Your task to perform on an android device: find snoozed emails in the gmail app Image 0: 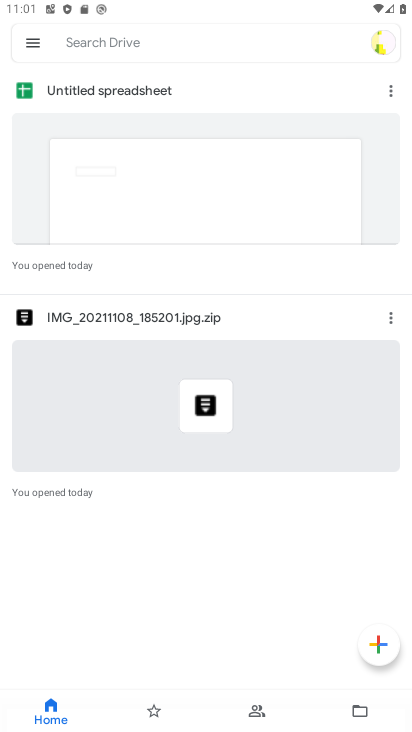
Step 0: press home button
Your task to perform on an android device: find snoozed emails in the gmail app Image 1: 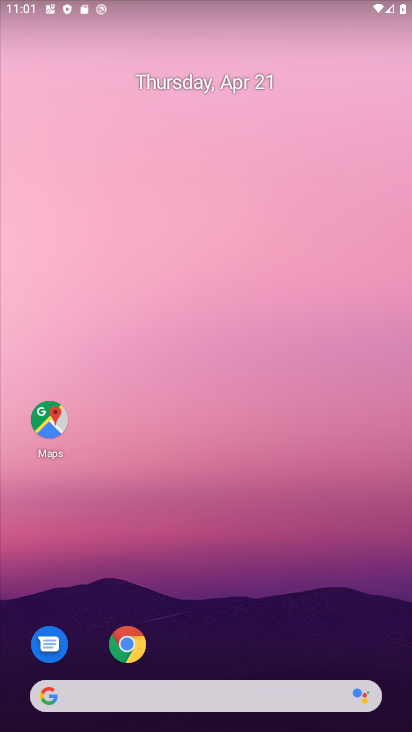
Step 1: drag from (284, 439) to (268, 334)
Your task to perform on an android device: find snoozed emails in the gmail app Image 2: 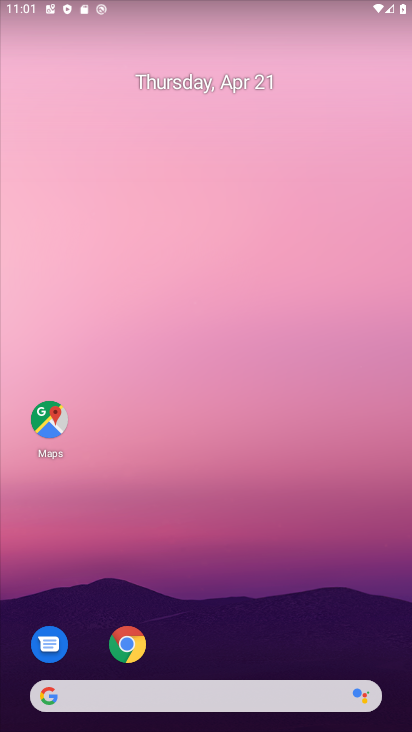
Step 2: drag from (221, 640) to (245, 141)
Your task to perform on an android device: find snoozed emails in the gmail app Image 3: 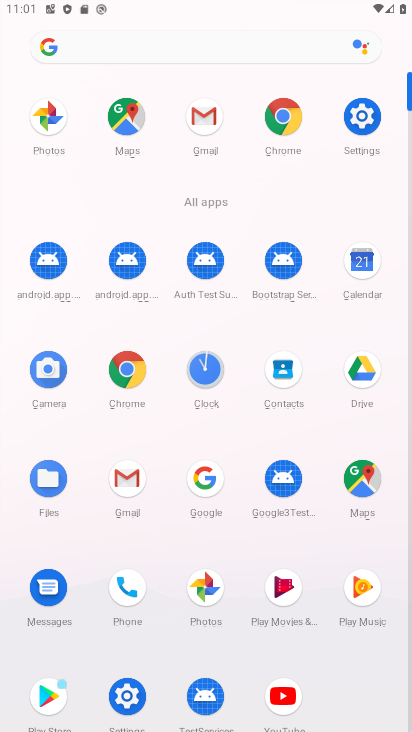
Step 3: click (200, 122)
Your task to perform on an android device: find snoozed emails in the gmail app Image 4: 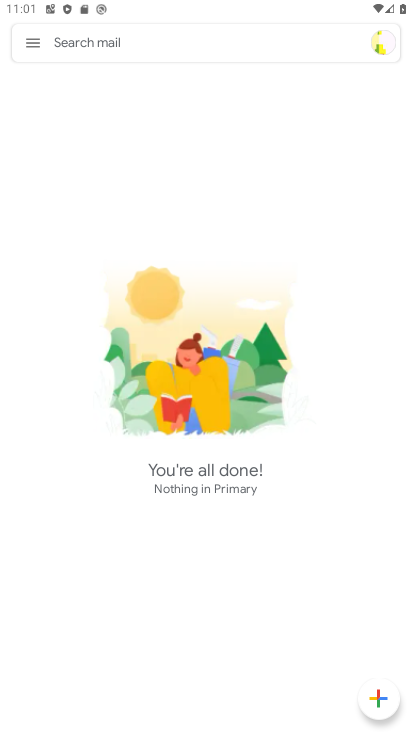
Step 4: click (34, 49)
Your task to perform on an android device: find snoozed emails in the gmail app Image 5: 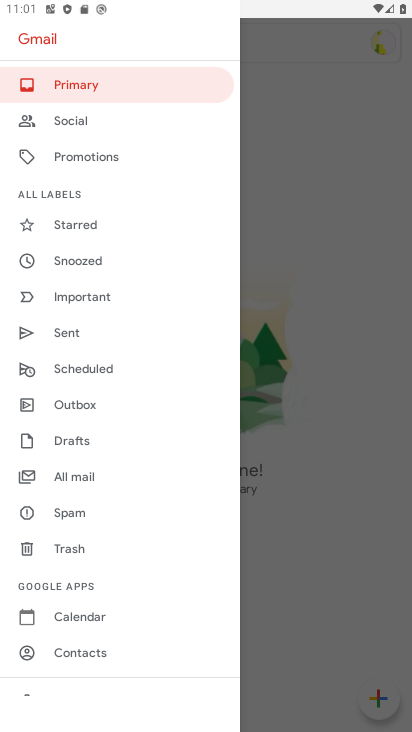
Step 5: click (126, 264)
Your task to perform on an android device: find snoozed emails in the gmail app Image 6: 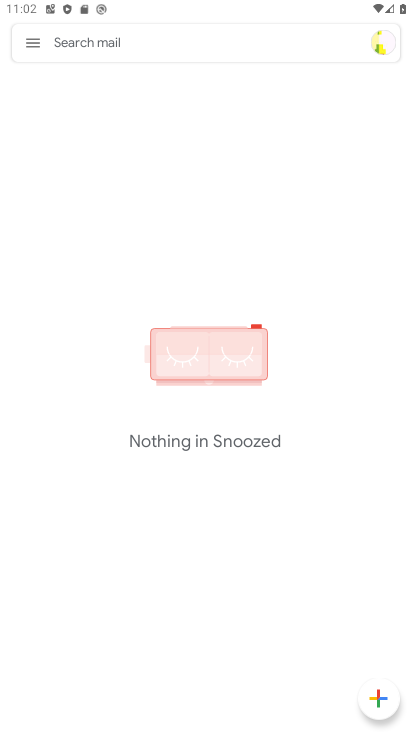
Step 6: task complete